Your task to perform on an android device: manage bookmarks in the chrome app Image 0: 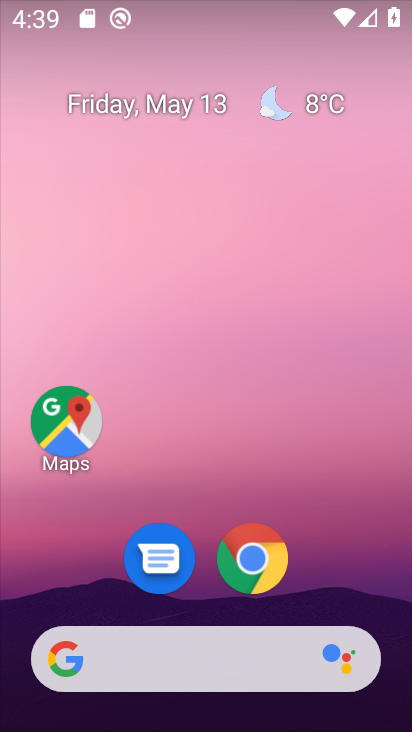
Step 0: click (262, 570)
Your task to perform on an android device: manage bookmarks in the chrome app Image 1: 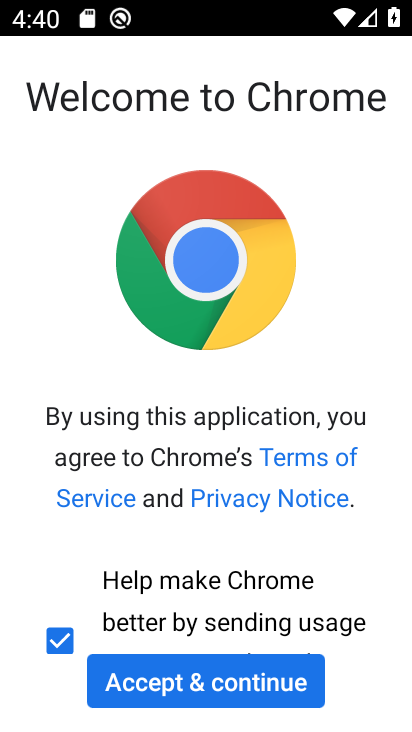
Step 1: click (233, 684)
Your task to perform on an android device: manage bookmarks in the chrome app Image 2: 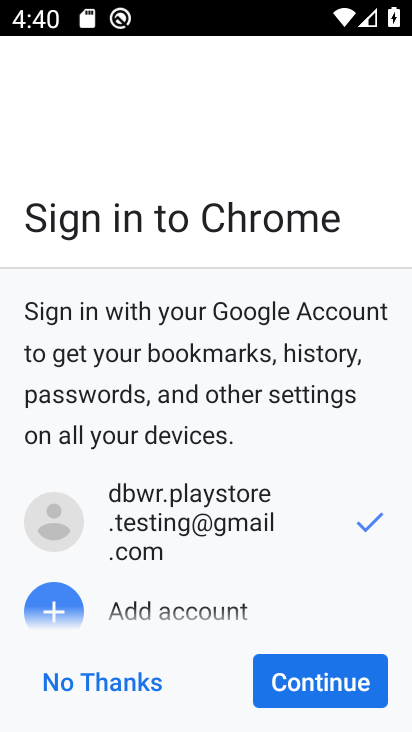
Step 2: click (287, 674)
Your task to perform on an android device: manage bookmarks in the chrome app Image 3: 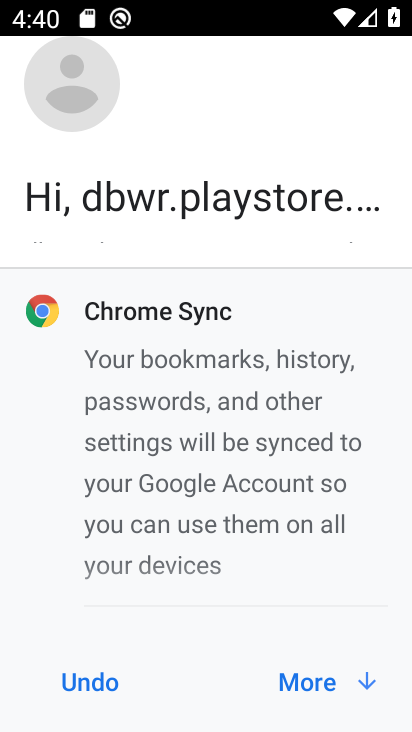
Step 3: click (317, 676)
Your task to perform on an android device: manage bookmarks in the chrome app Image 4: 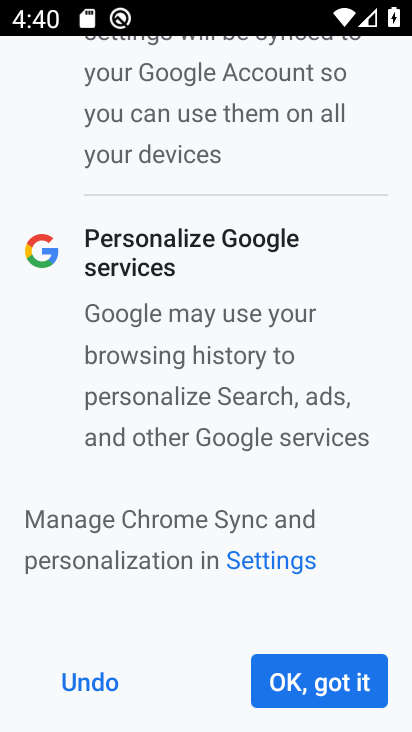
Step 4: click (317, 676)
Your task to perform on an android device: manage bookmarks in the chrome app Image 5: 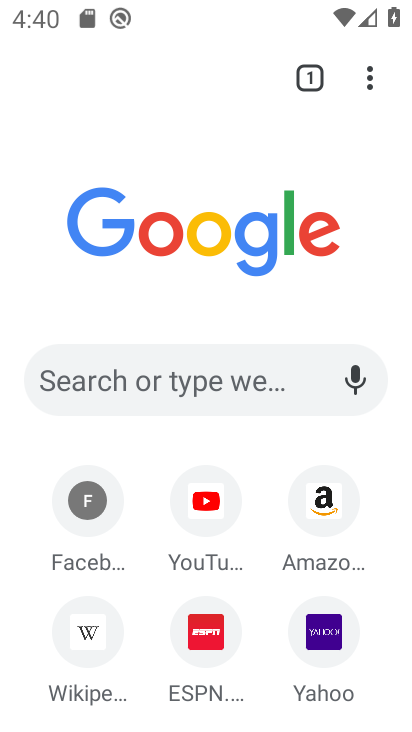
Step 5: task complete